Your task to perform on an android device: change your default location settings in chrome Image 0: 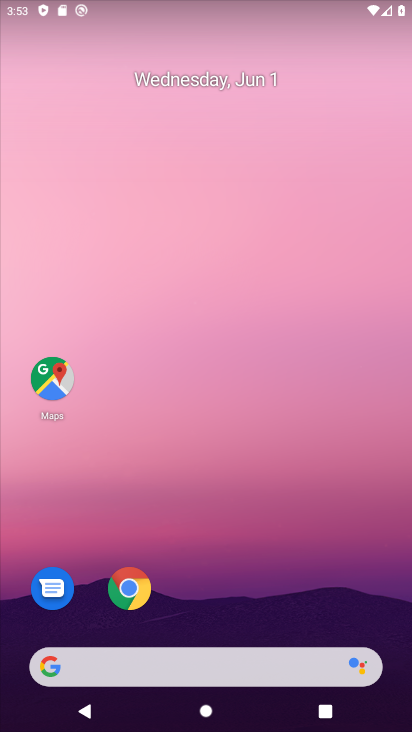
Step 0: drag from (291, 550) to (251, 295)
Your task to perform on an android device: change your default location settings in chrome Image 1: 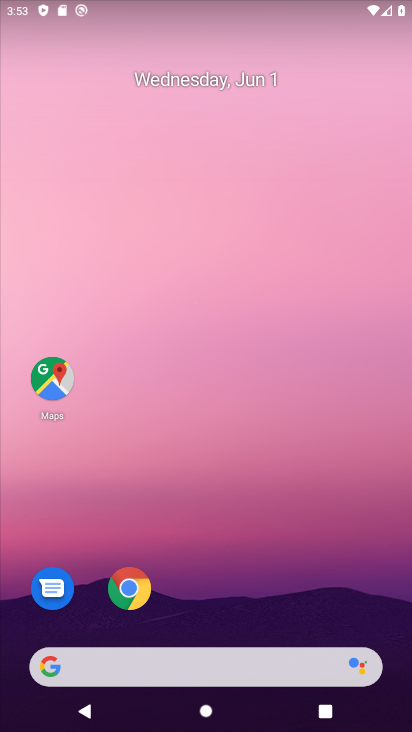
Step 1: drag from (237, 611) to (172, 245)
Your task to perform on an android device: change your default location settings in chrome Image 2: 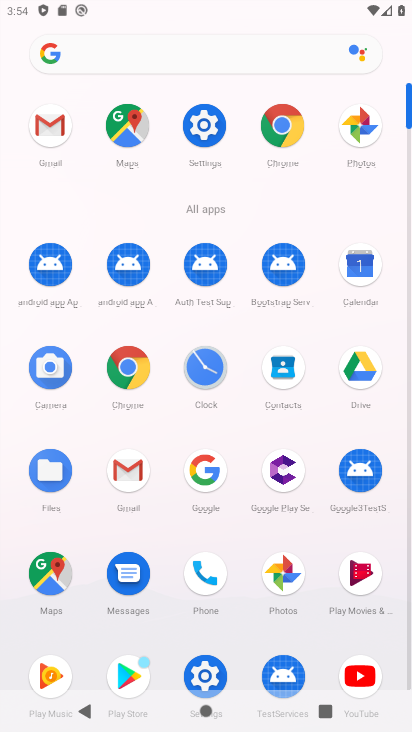
Step 2: click (285, 115)
Your task to perform on an android device: change your default location settings in chrome Image 3: 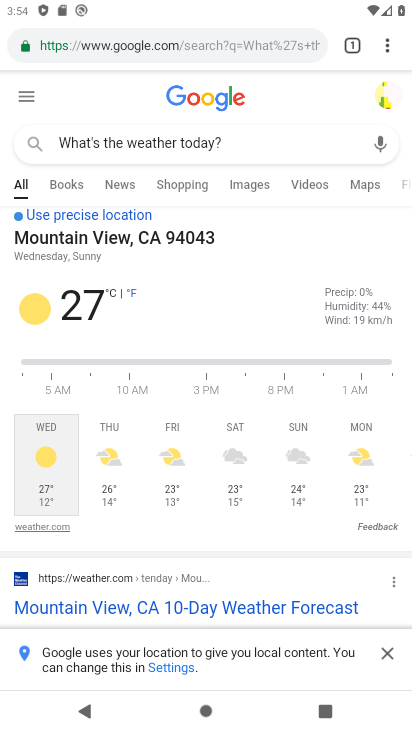
Step 3: click (381, 38)
Your task to perform on an android device: change your default location settings in chrome Image 4: 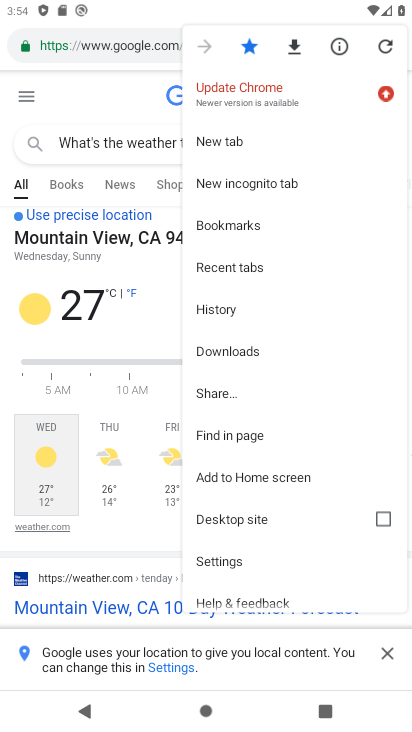
Step 4: click (253, 552)
Your task to perform on an android device: change your default location settings in chrome Image 5: 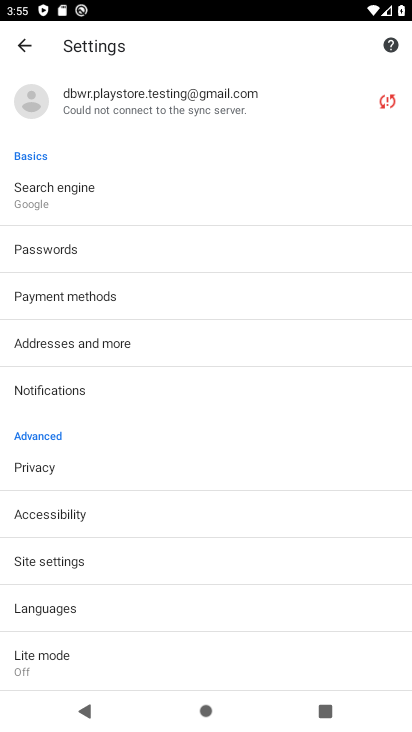
Step 5: click (156, 568)
Your task to perform on an android device: change your default location settings in chrome Image 6: 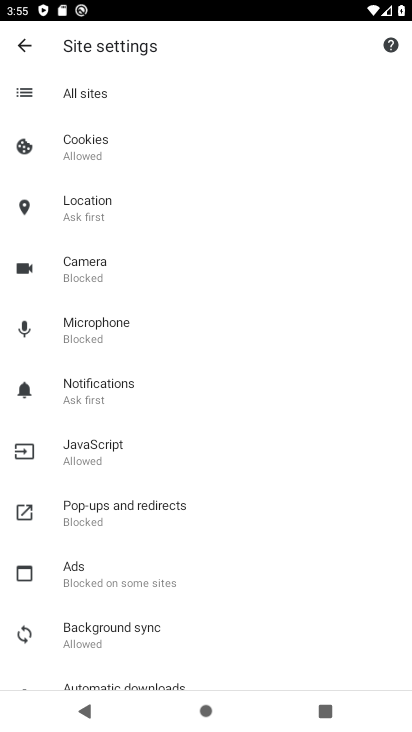
Step 6: click (229, 212)
Your task to perform on an android device: change your default location settings in chrome Image 7: 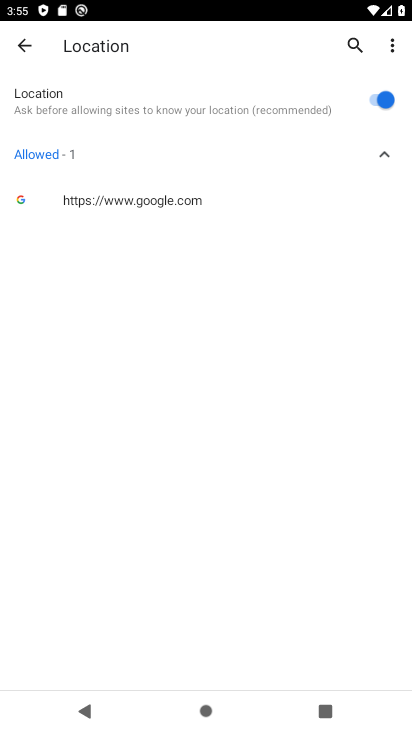
Step 7: task complete